Your task to perform on an android device: Go to privacy settings Image 0: 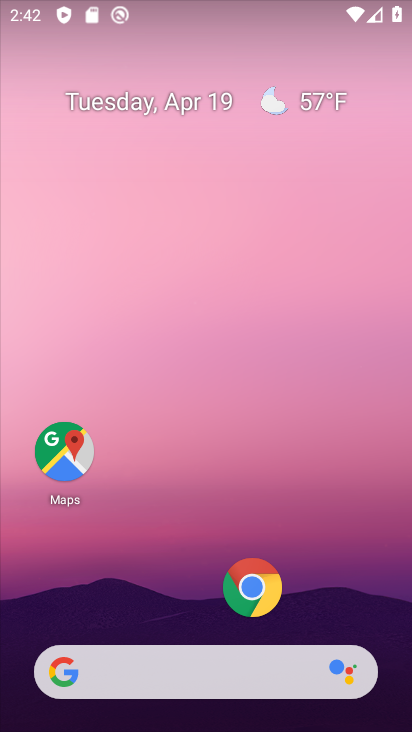
Step 0: drag from (159, 621) to (357, 38)
Your task to perform on an android device: Go to privacy settings Image 1: 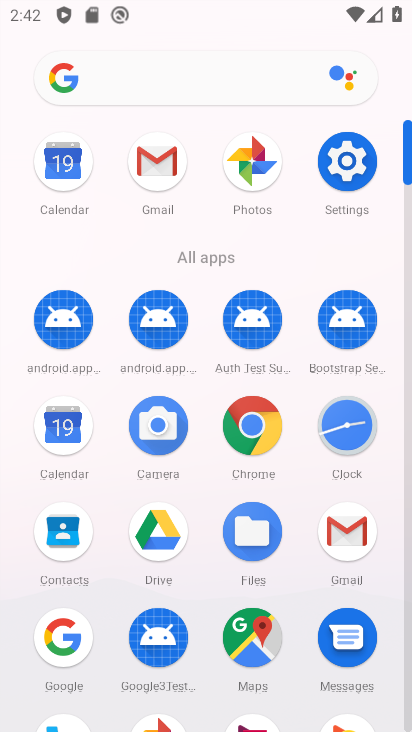
Step 1: click (340, 164)
Your task to perform on an android device: Go to privacy settings Image 2: 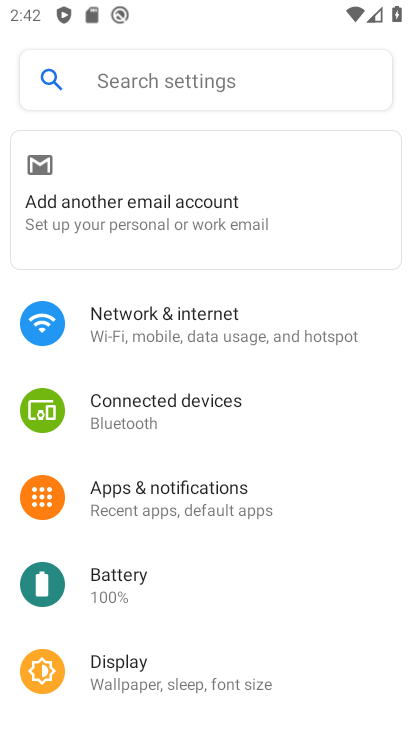
Step 2: drag from (131, 641) to (183, 321)
Your task to perform on an android device: Go to privacy settings Image 3: 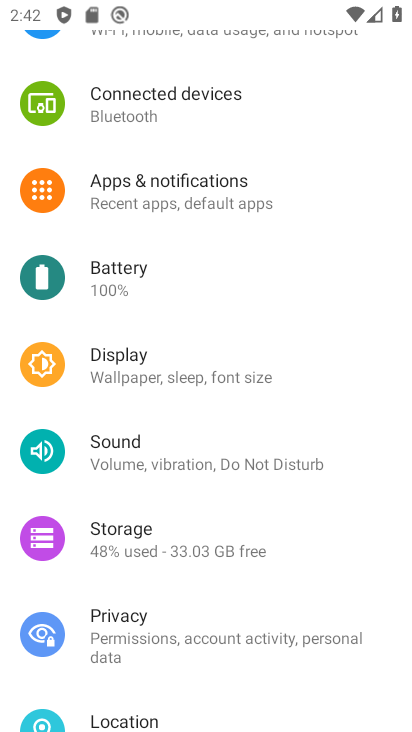
Step 3: click (133, 643)
Your task to perform on an android device: Go to privacy settings Image 4: 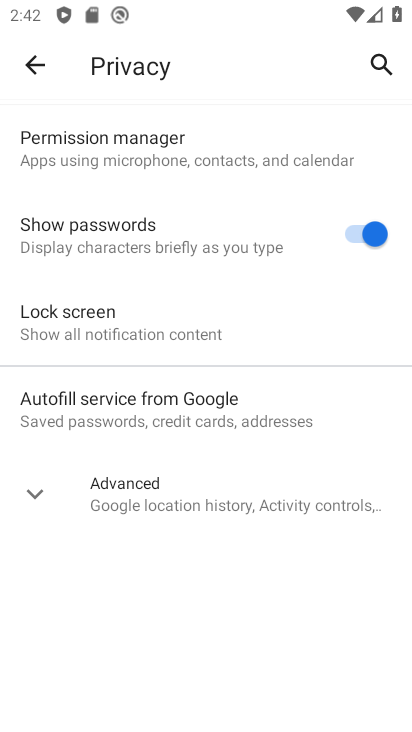
Step 4: task complete